Your task to perform on an android device: open a bookmark in the chrome app Image 0: 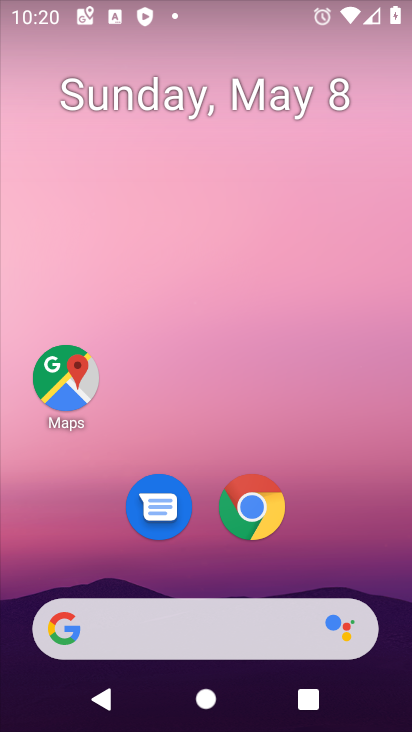
Step 0: click (250, 504)
Your task to perform on an android device: open a bookmark in the chrome app Image 1: 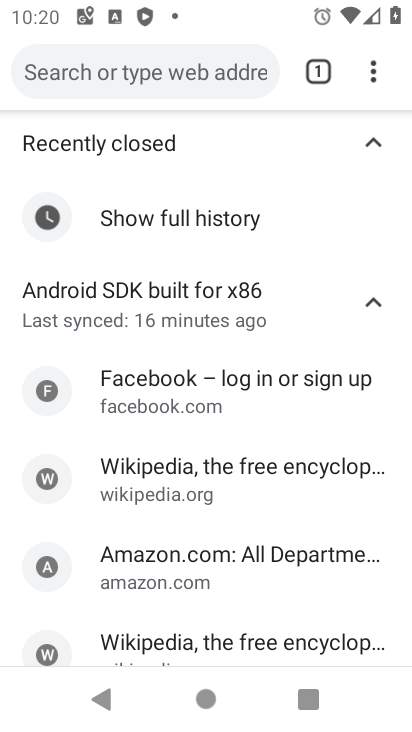
Step 1: click (375, 70)
Your task to perform on an android device: open a bookmark in the chrome app Image 2: 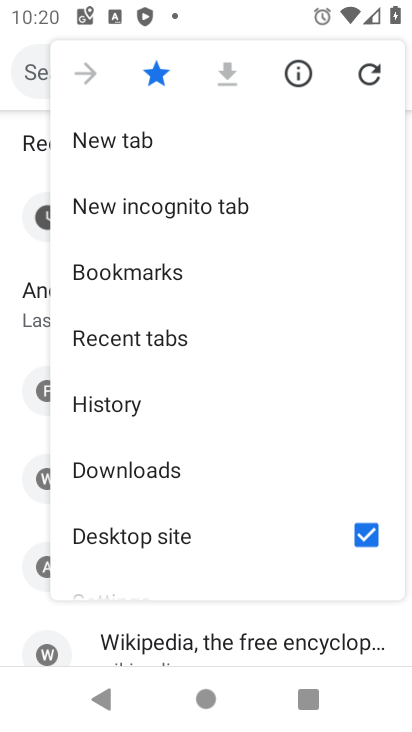
Step 2: click (186, 271)
Your task to perform on an android device: open a bookmark in the chrome app Image 3: 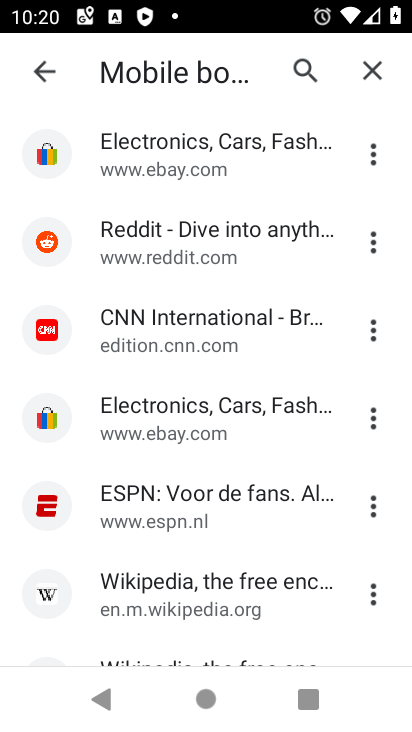
Step 3: click (186, 271)
Your task to perform on an android device: open a bookmark in the chrome app Image 4: 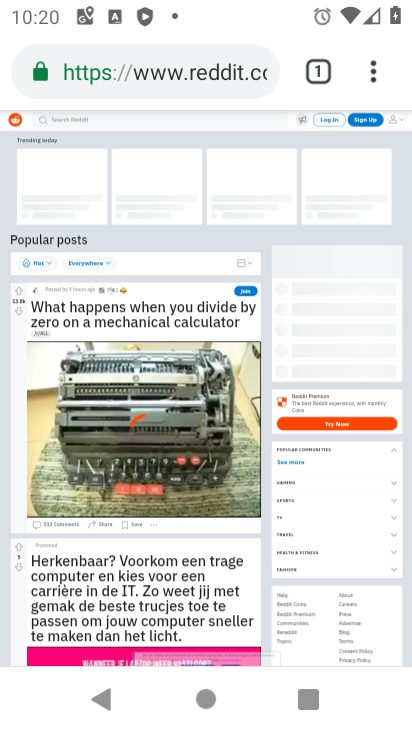
Step 4: task complete